Your task to perform on an android device: Search for flights from San Francisco to Tokyo Image 0: 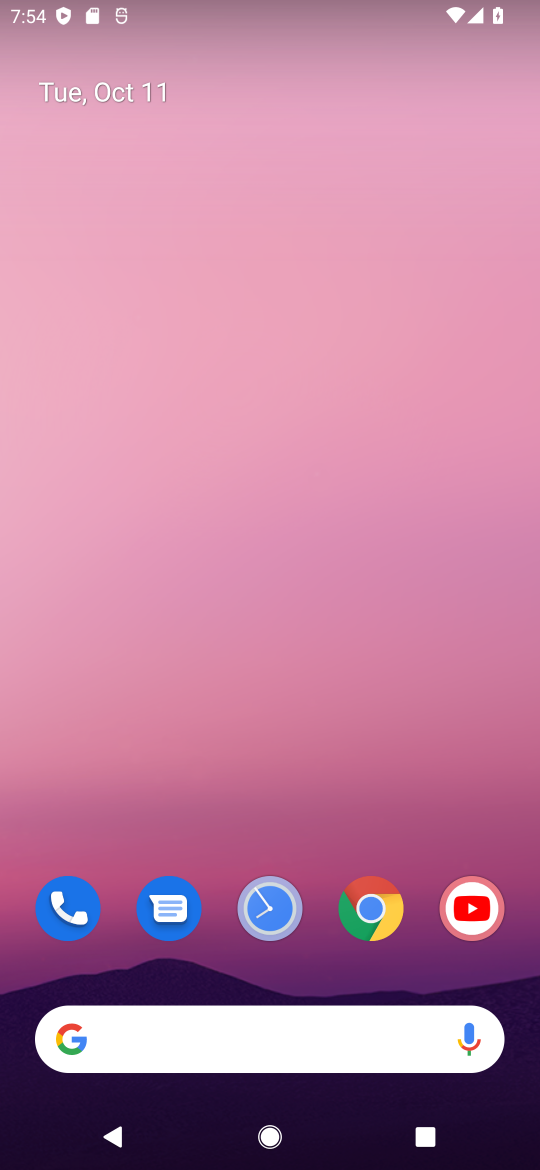
Step 0: click (162, 1036)
Your task to perform on an android device: Search for flights from San Francisco to Tokyo Image 1: 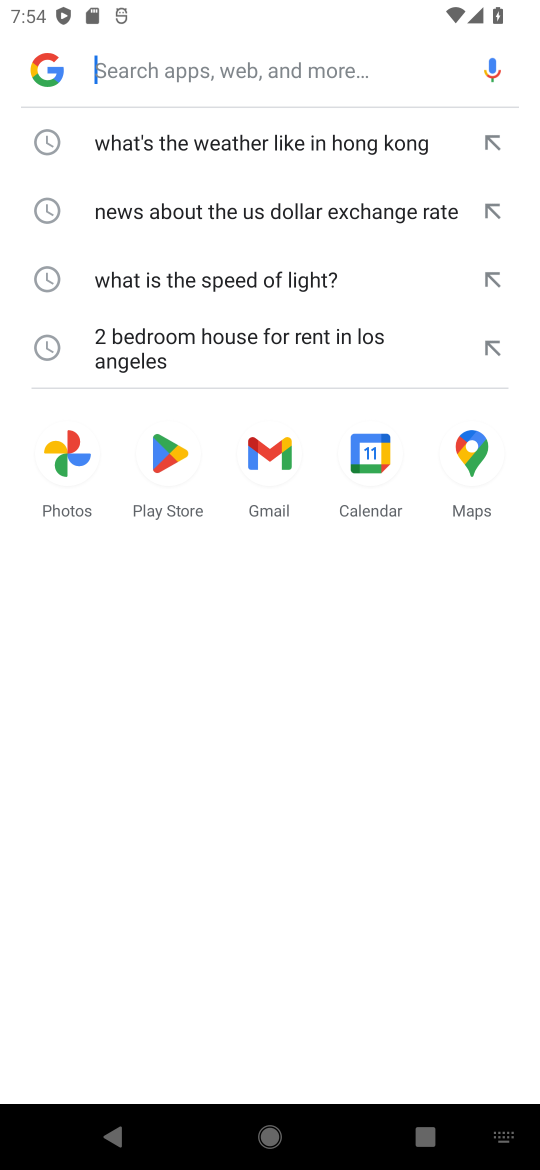
Step 1: type "Search for flights from San Francisco to Tokyo"
Your task to perform on an android device: Search for flights from San Francisco to Tokyo Image 2: 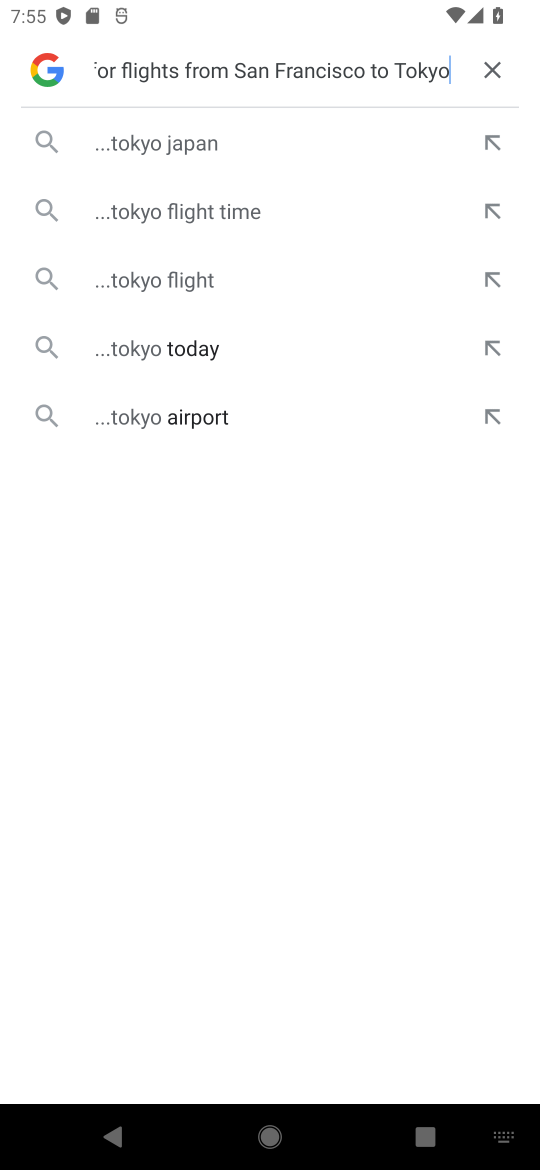
Step 2: click (236, 131)
Your task to perform on an android device: Search for flights from San Francisco to Tokyo Image 3: 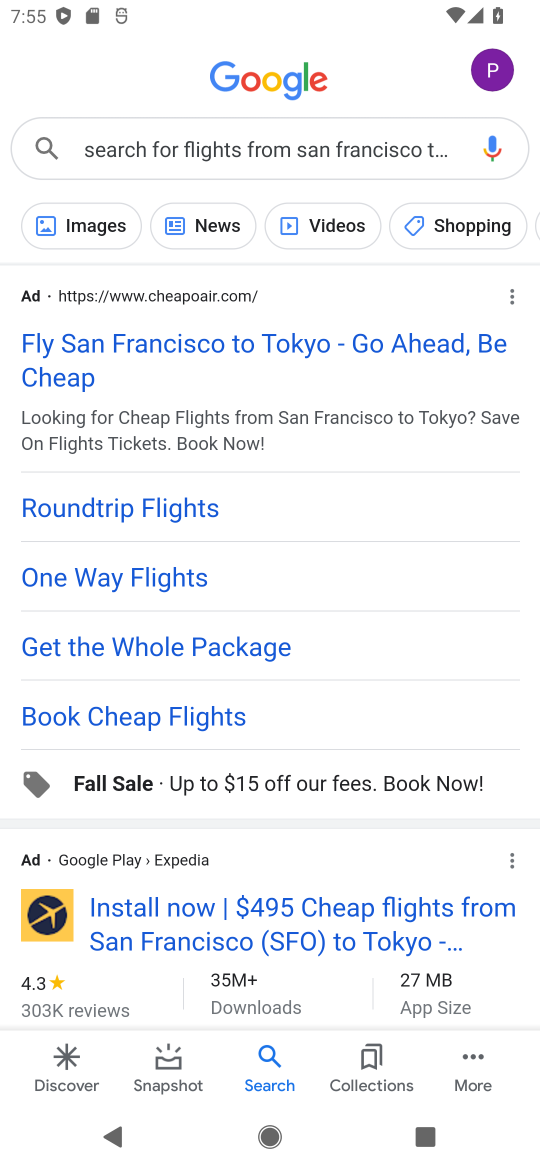
Step 3: click (190, 360)
Your task to perform on an android device: Search for flights from San Francisco to Tokyo Image 4: 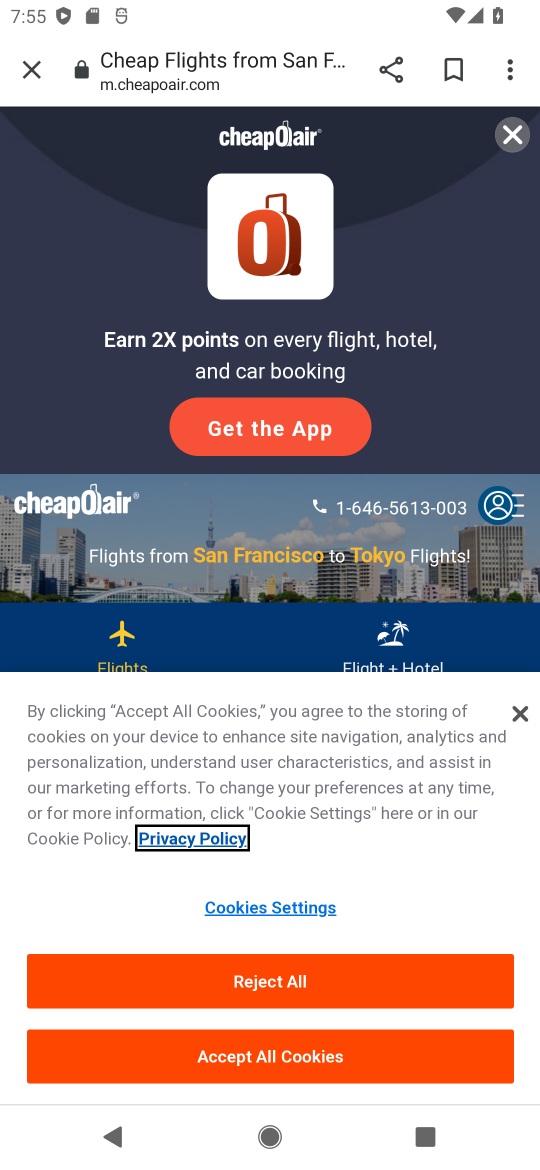
Step 4: click (515, 706)
Your task to perform on an android device: Search for flights from San Francisco to Tokyo Image 5: 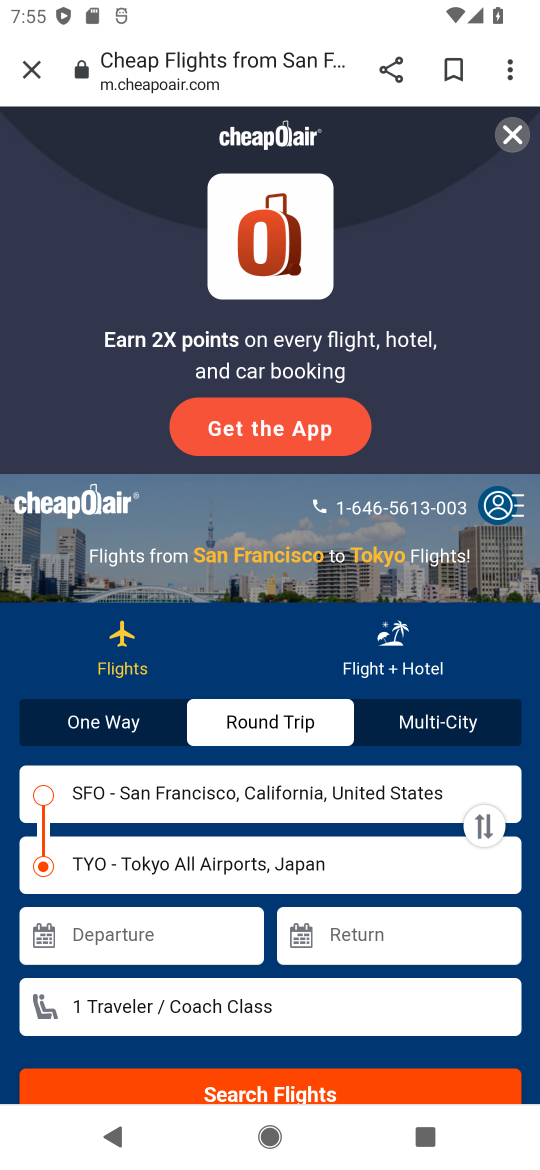
Step 5: click (311, 1099)
Your task to perform on an android device: Search for flights from San Francisco to Tokyo Image 6: 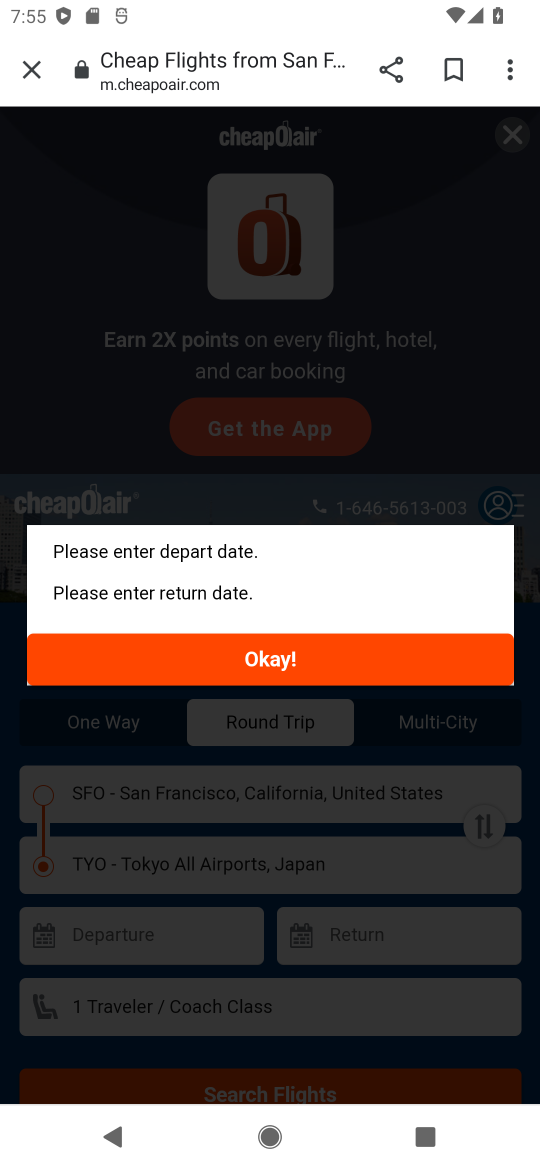
Step 6: click (252, 668)
Your task to perform on an android device: Search for flights from San Francisco to Tokyo Image 7: 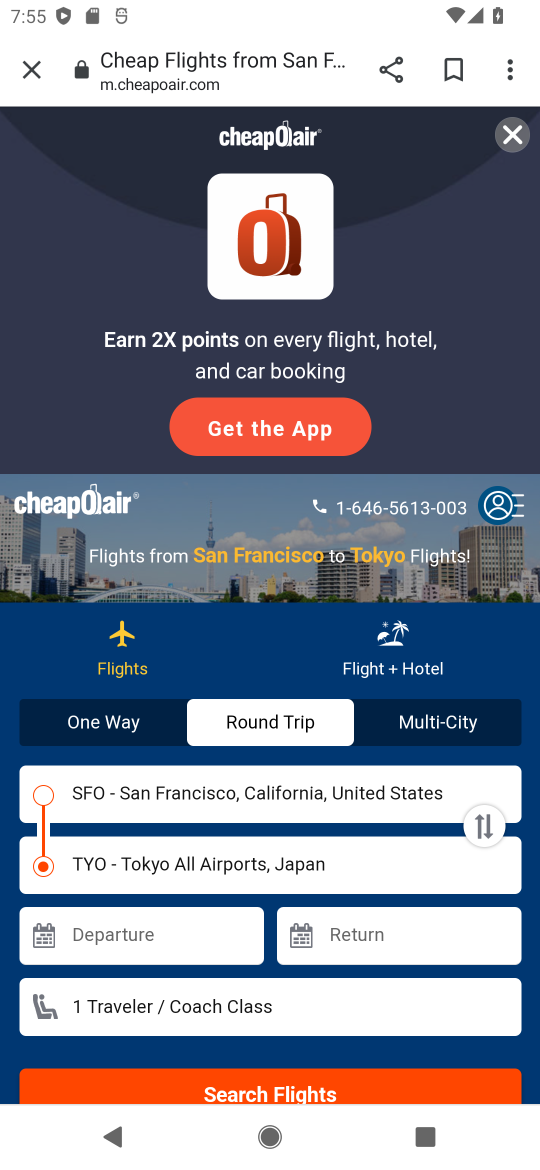
Step 7: drag from (459, 380) to (442, 205)
Your task to perform on an android device: Search for flights from San Francisco to Tokyo Image 8: 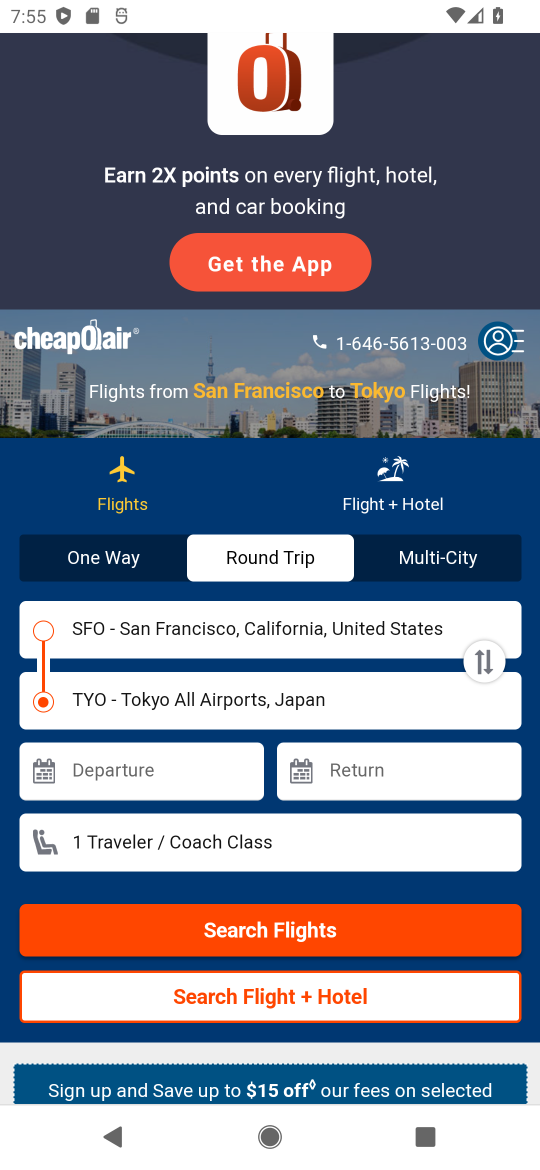
Step 8: click (298, 937)
Your task to perform on an android device: Search for flights from San Francisco to Tokyo Image 9: 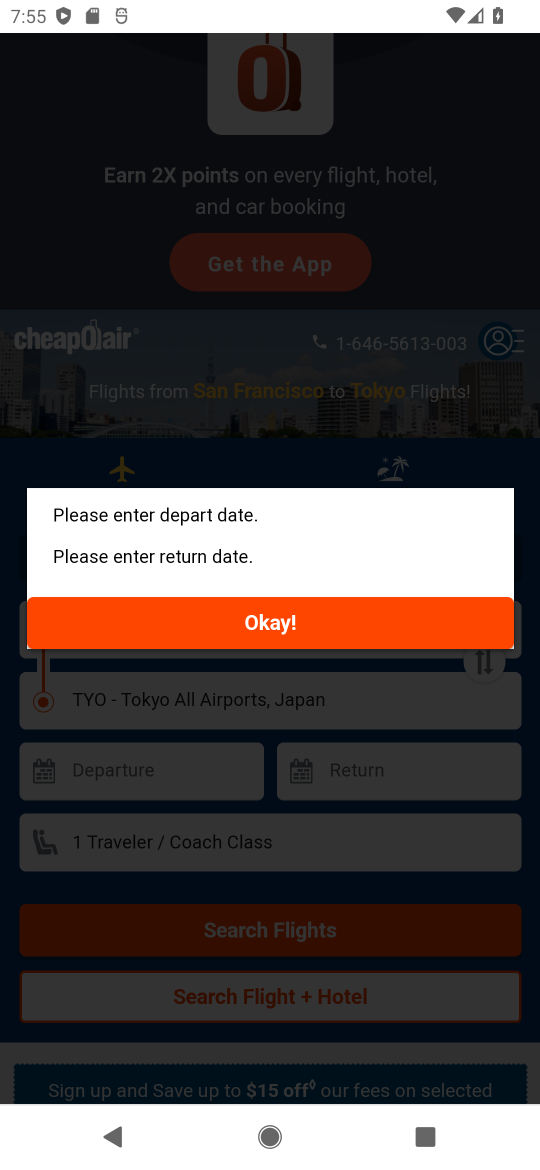
Step 9: click (271, 609)
Your task to perform on an android device: Search for flights from San Francisco to Tokyo Image 10: 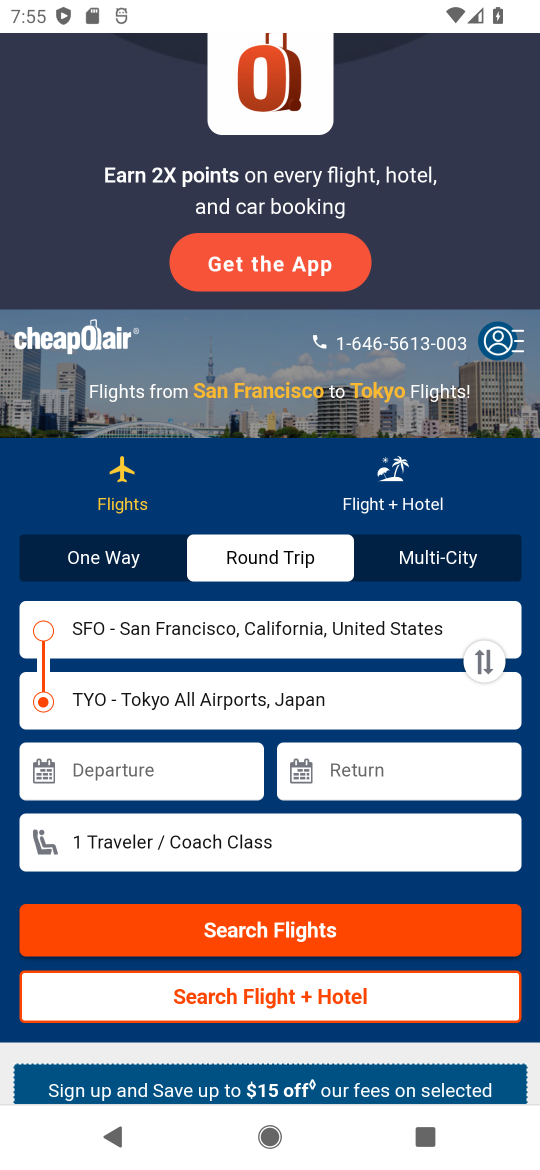
Step 10: click (125, 769)
Your task to perform on an android device: Search for flights from San Francisco to Tokyo Image 11: 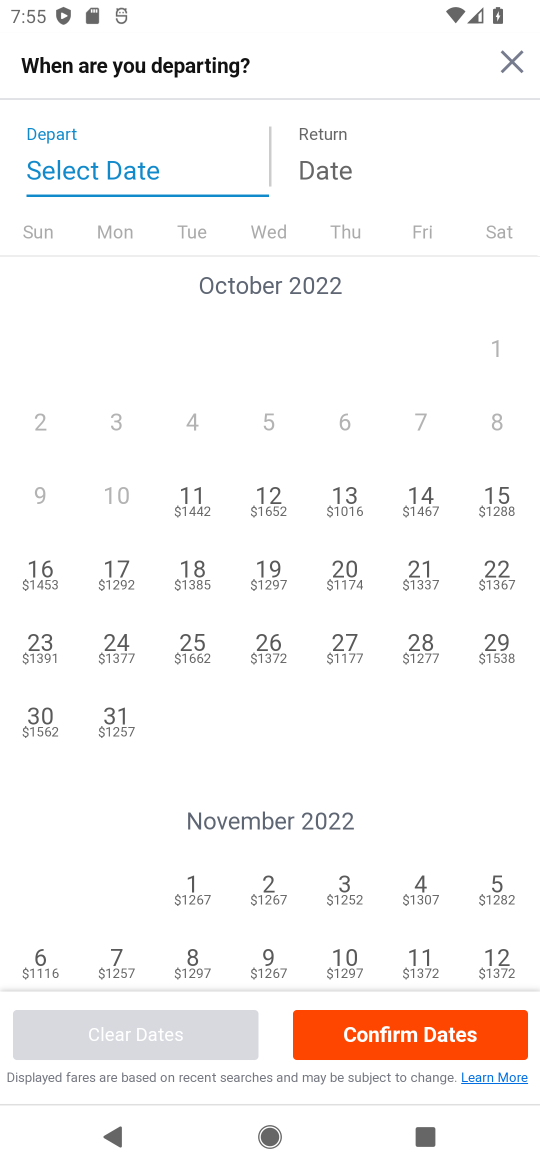
Step 11: click (198, 496)
Your task to perform on an android device: Search for flights from San Francisco to Tokyo Image 12: 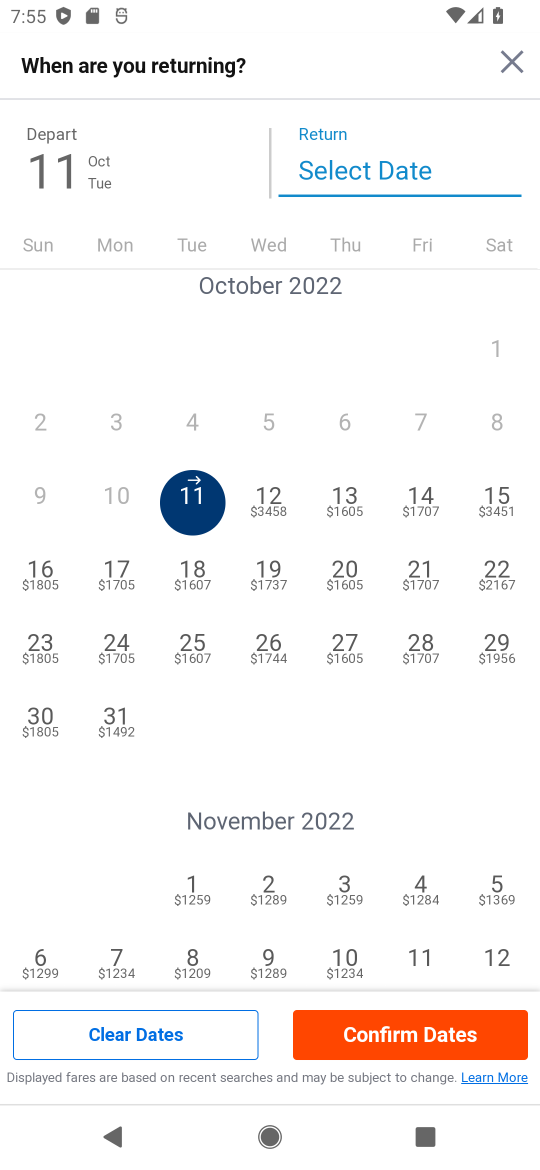
Step 12: click (378, 1043)
Your task to perform on an android device: Search for flights from San Francisco to Tokyo Image 13: 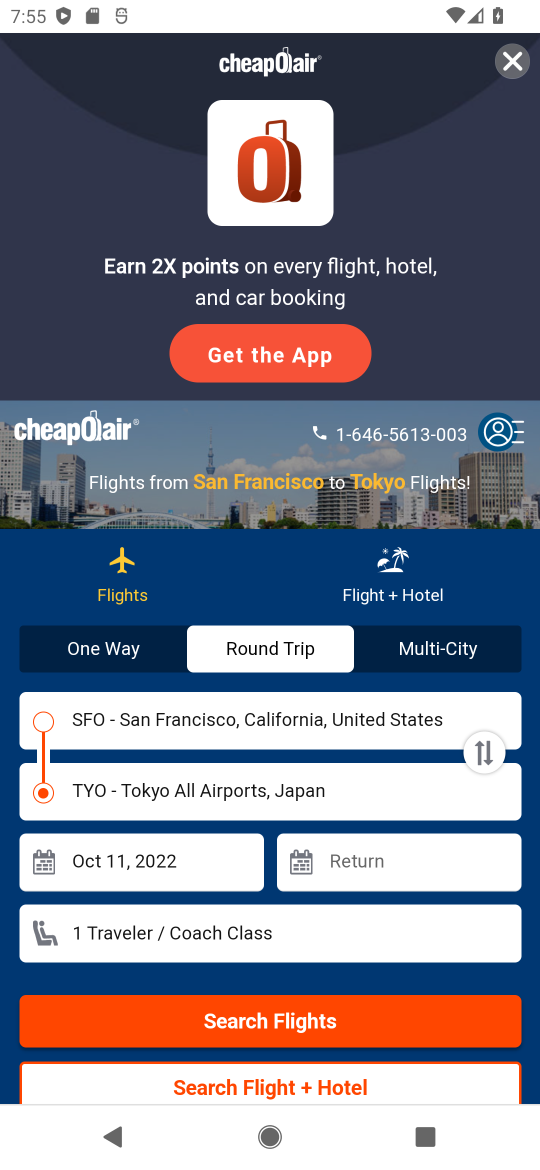
Step 13: click (385, 859)
Your task to perform on an android device: Search for flights from San Francisco to Tokyo Image 14: 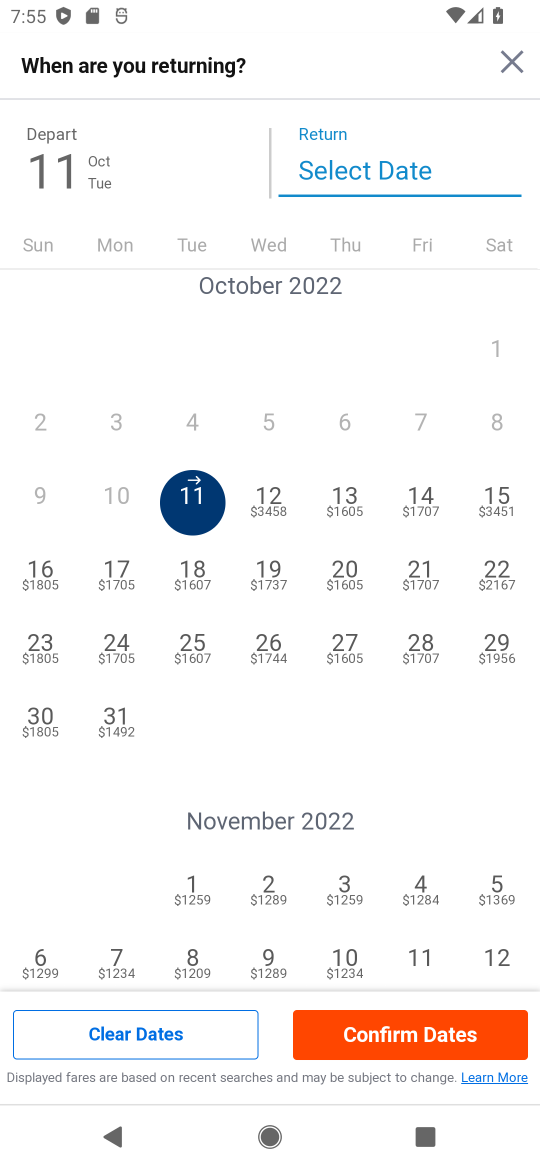
Step 14: click (341, 567)
Your task to perform on an android device: Search for flights from San Francisco to Tokyo Image 15: 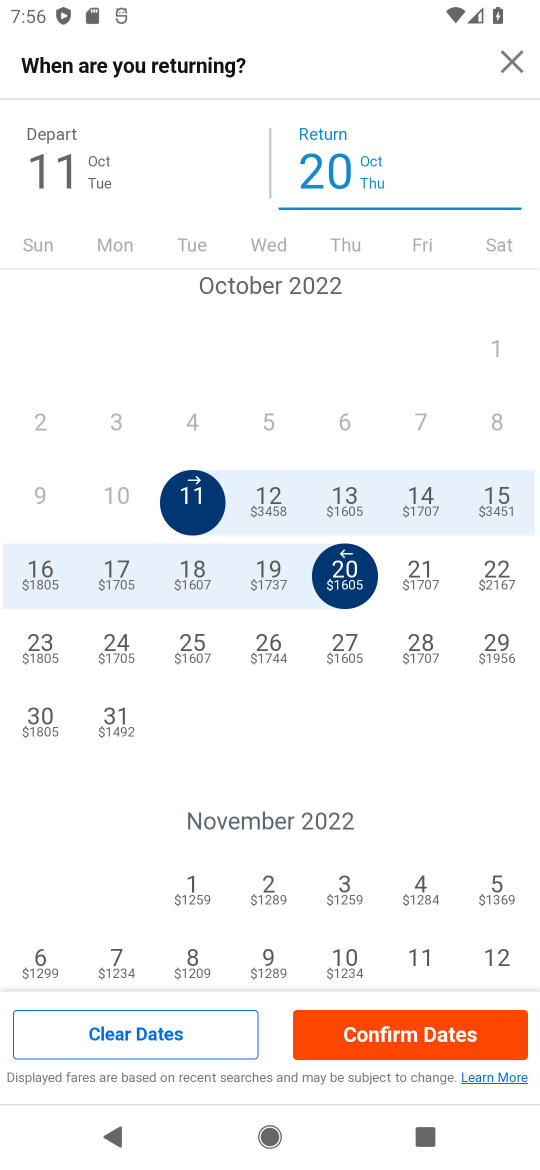
Step 15: click (400, 1033)
Your task to perform on an android device: Search for flights from San Francisco to Tokyo Image 16: 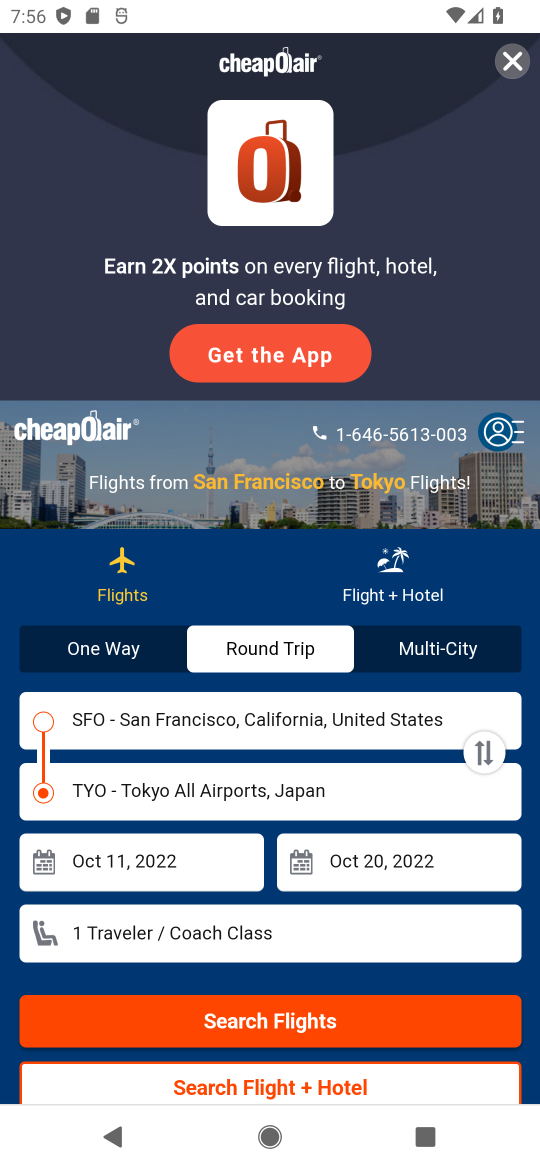
Step 16: click (302, 1029)
Your task to perform on an android device: Search for flights from San Francisco to Tokyo Image 17: 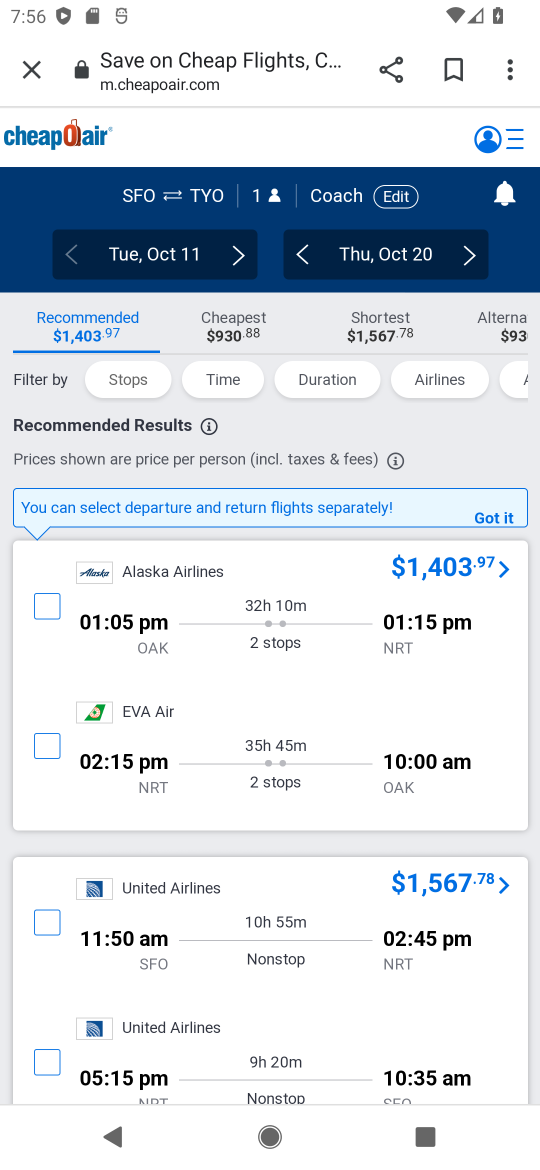
Step 17: task complete